Your task to perform on an android device: turn on data saver in the chrome app Image 0: 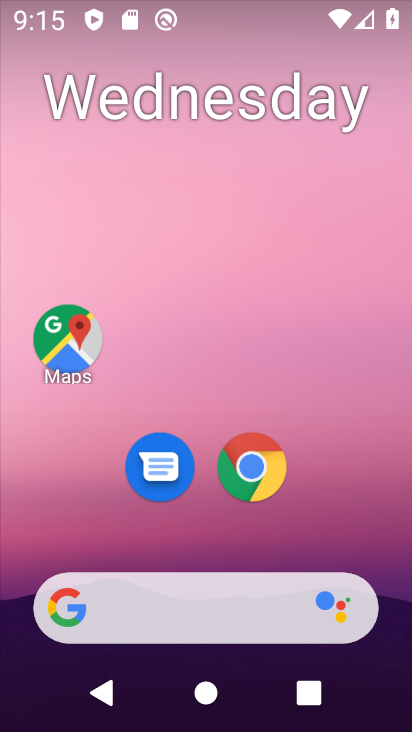
Step 0: click (257, 463)
Your task to perform on an android device: turn on data saver in the chrome app Image 1: 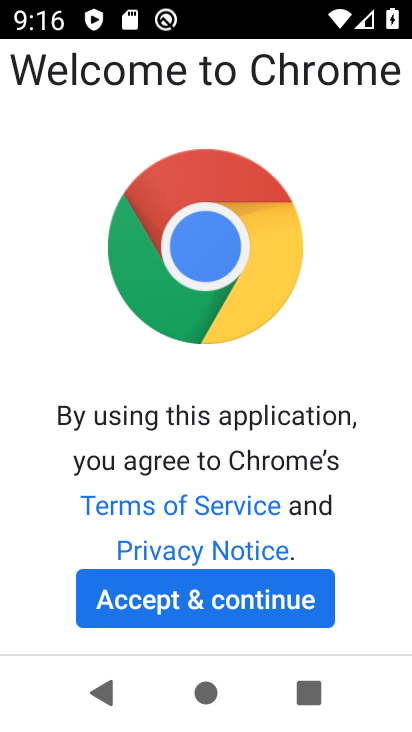
Step 1: click (227, 600)
Your task to perform on an android device: turn on data saver in the chrome app Image 2: 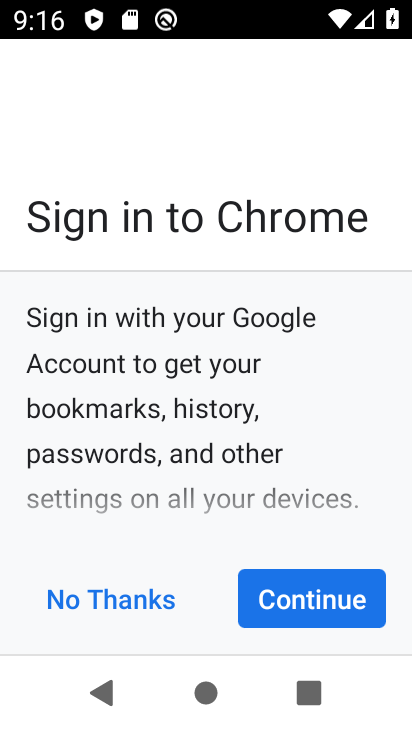
Step 2: click (288, 598)
Your task to perform on an android device: turn on data saver in the chrome app Image 3: 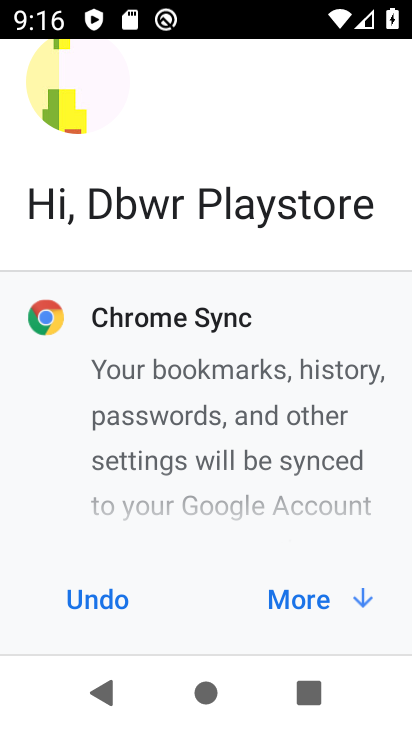
Step 3: click (307, 599)
Your task to perform on an android device: turn on data saver in the chrome app Image 4: 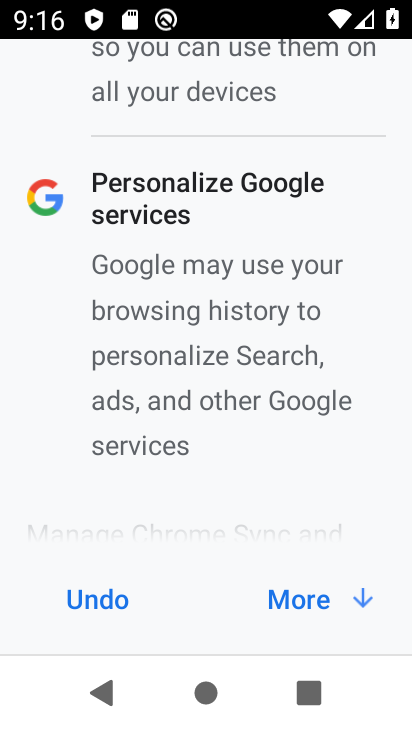
Step 4: click (307, 601)
Your task to perform on an android device: turn on data saver in the chrome app Image 5: 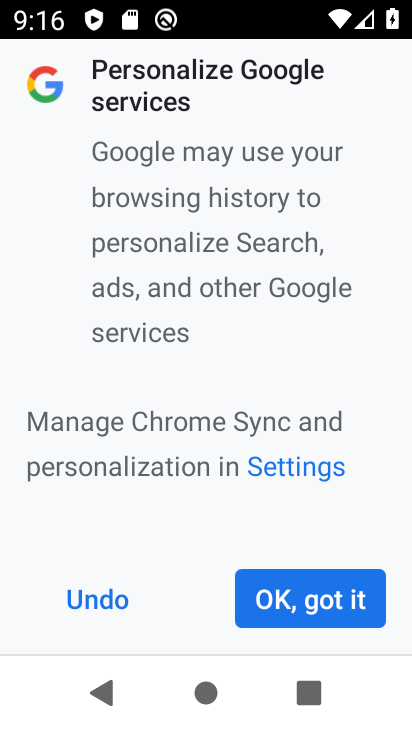
Step 5: click (307, 601)
Your task to perform on an android device: turn on data saver in the chrome app Image 6: 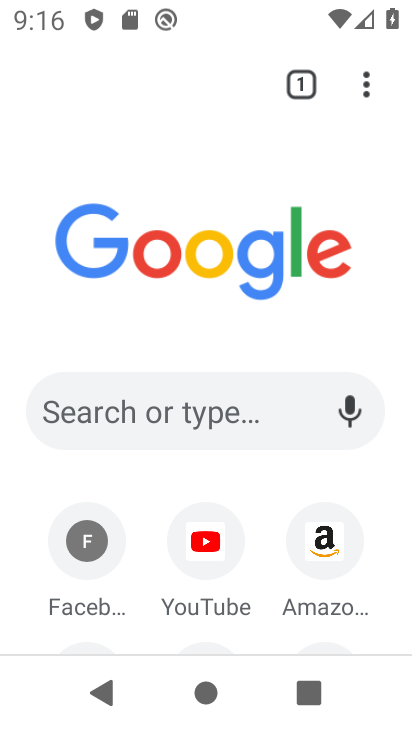
Step 6: click (366, 93)
Your task to perform on an android device: turn on data saver in the chrome app Image 7: 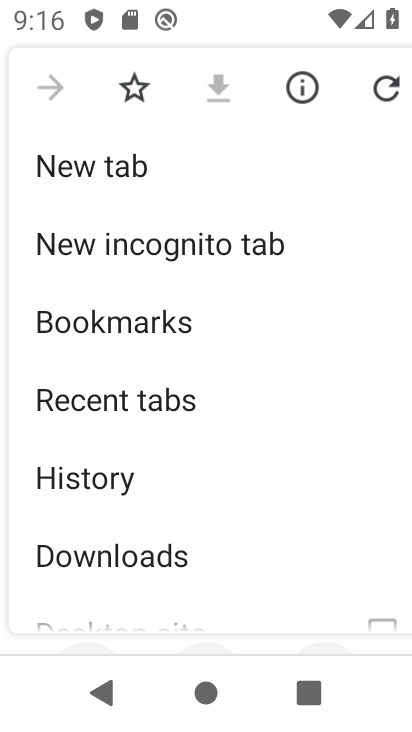
Step 7: drag from (114, 597) to (105, 167)
Your task to perform on an android device: turn on data saver in the chrome app Image 8: 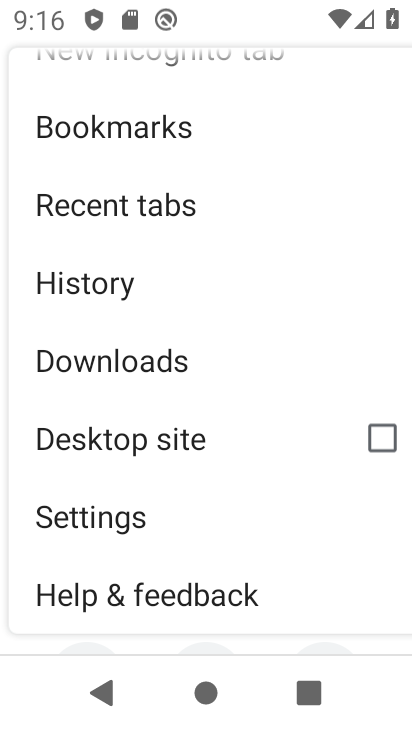
Step 8: click (120, 516)
Your task to perform on an android device: turn on data saver in the chrome app Image 9: 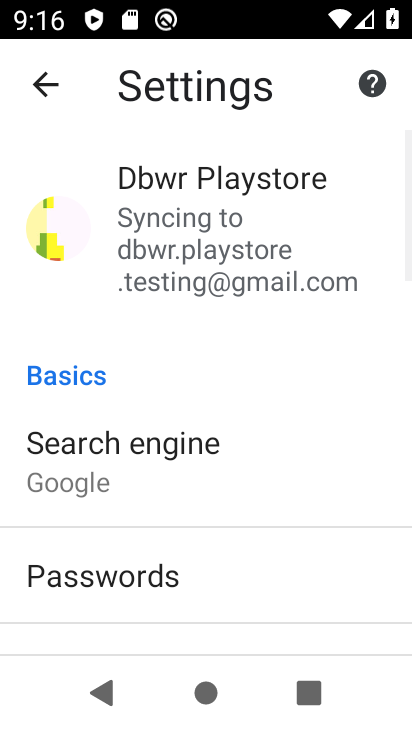
Step 9: drag from (177, 620) to (181, 250)
Your task to perform on an android device: turn on data saver in the chrome app Image 10: 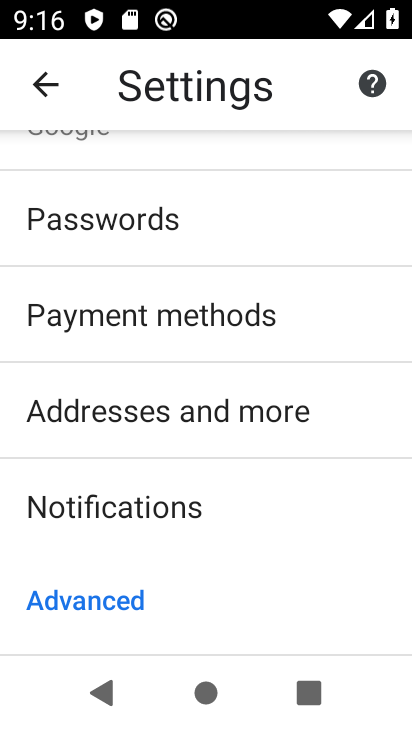
Step 10: drag from (172, 631) to (192, 209)
Your task to perform on an android device: turn on data saver in the chrome app Image 11: 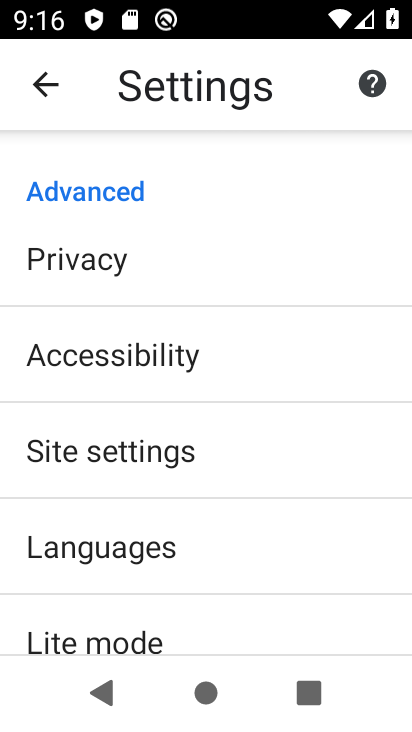
Step 11: click (138, 631)
Your task to perform on an android device: turn on data saver in the chrome app Image 12: 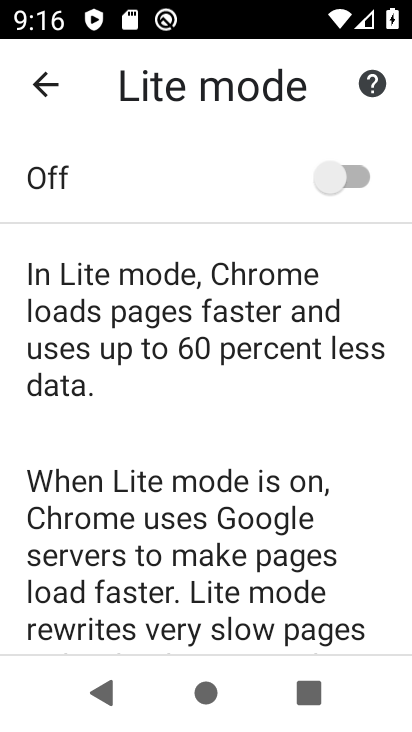
Step 12: click (348, 170)
Your task to perform on an android device: turn on data saver in the chrome app Image 13: 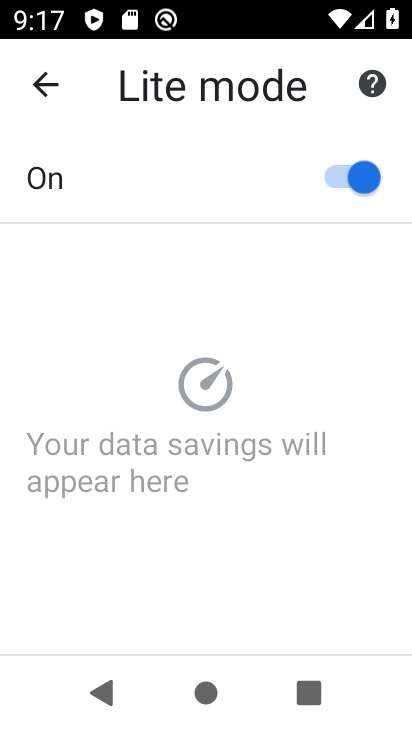
Step 13: task complete